Your task to perform on an android device: toggle airplane mode Image 0: 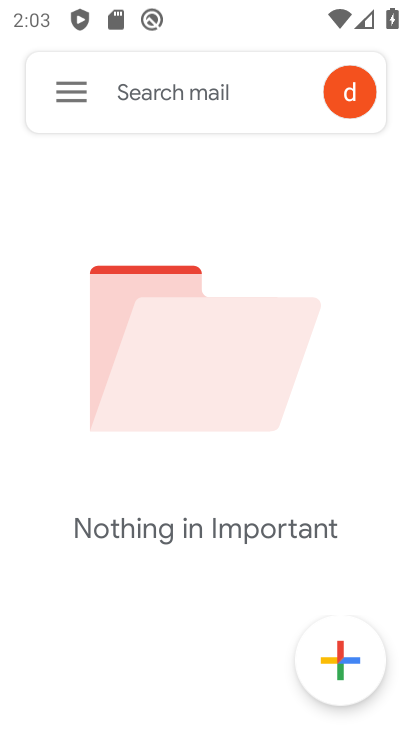
Step 0: drag from (266, 4) to (252, 565)
Your task to perform on an android device: toggle airplane mode Image 1: 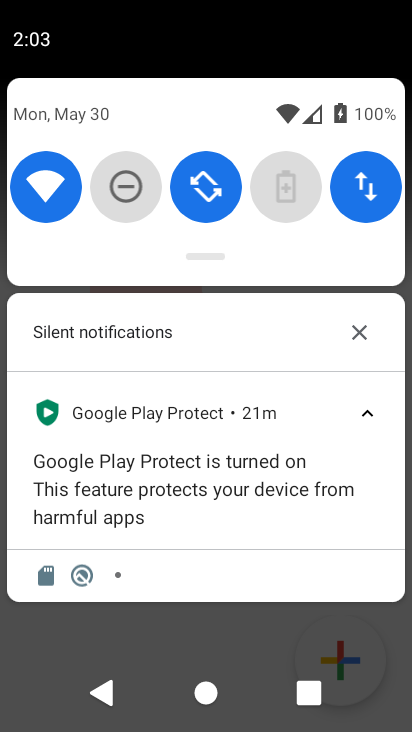
Step 1: drag from (252, 119) to (210, 702)
Your task to perform on an android device: toggle airplane mode Image 2: 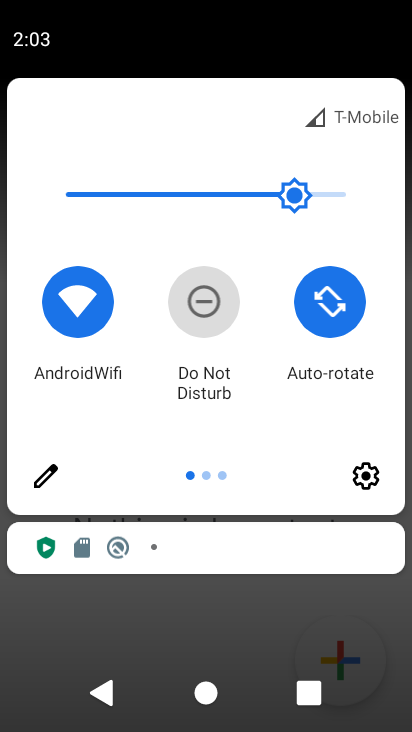
Step 2: drag from (349, 422) to (12, 398)
Your task to perform on an android device: toggle airplane mode Image 3: 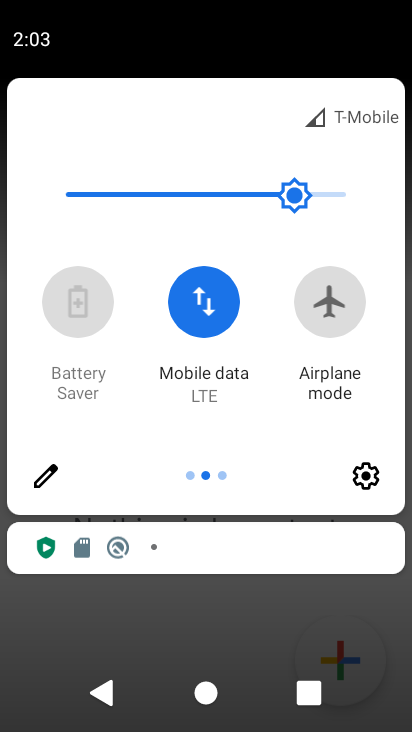
Step 3: click (355, 309)
Your task to perform on an android device: toggle airplane mode Image 4: 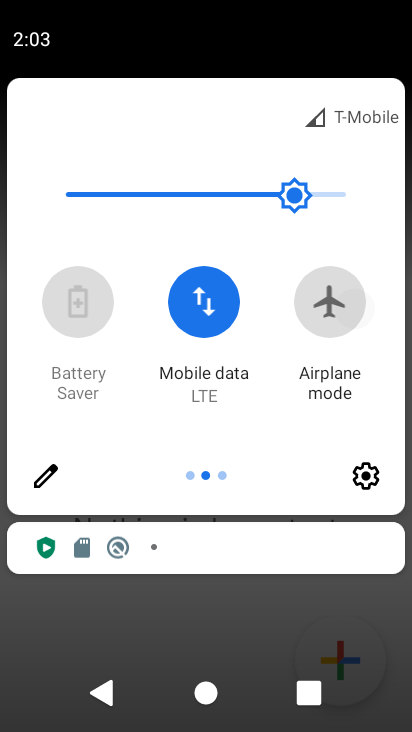
Step 4: click (355, 309)
Your task to perform on an android device: toggle airplane mode Image 5: 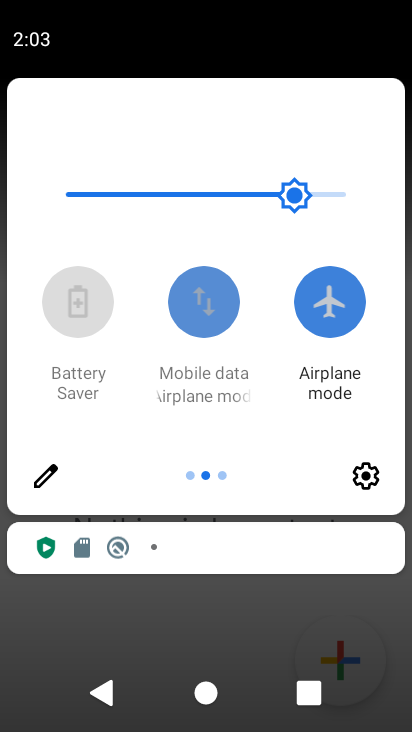
Step 5: click (355, 309)
Your task to perform on an android device: toggle airplane mode Image 6: 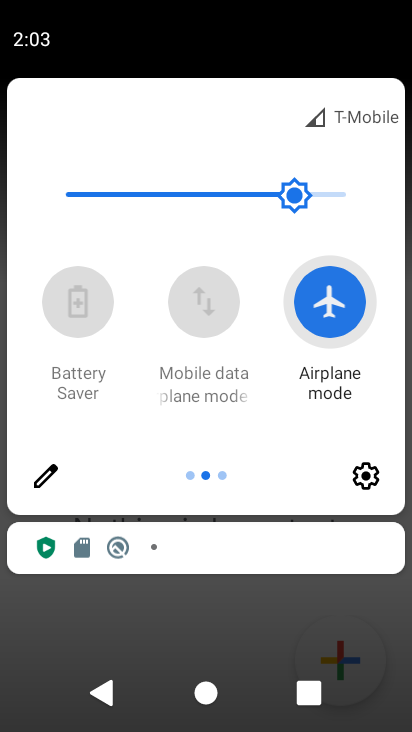
Step 6: click (355, 309)
Your task to perform on an android device: toggle airplane mode Image 7: 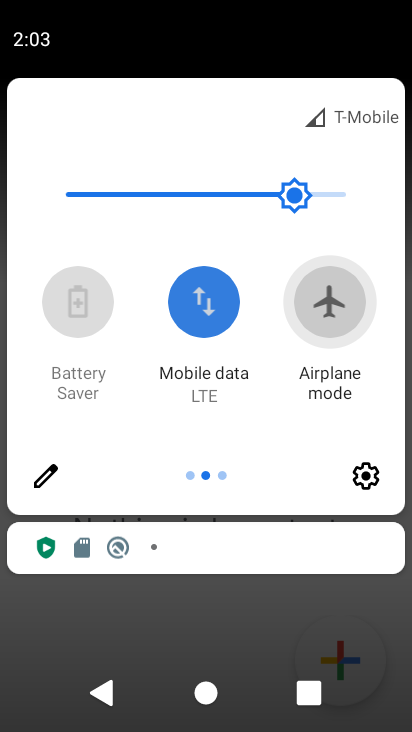
Step 7: click (354, 308)
Your task to perform on an android device: toggle airplane mode Image 8: 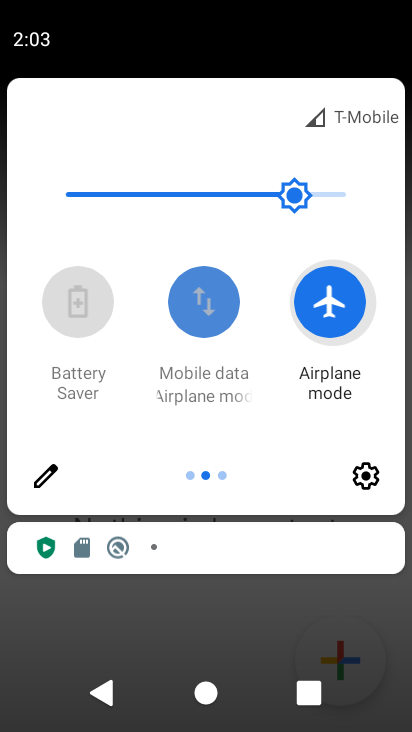
Step 8: click (355, 309)
Your task to perform on an android device: toggle airplane mode Image 9: 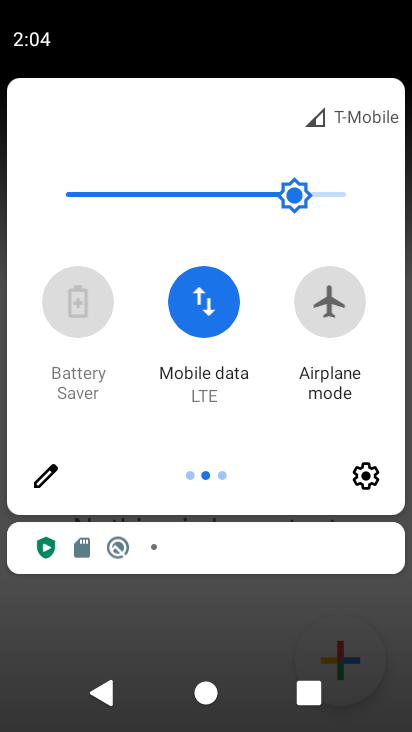
Step 9: task complete